Your task to perform on an android device: Add "macbook pro 13 inch" to the cart on newegg.com, then select checkout. Image 0: 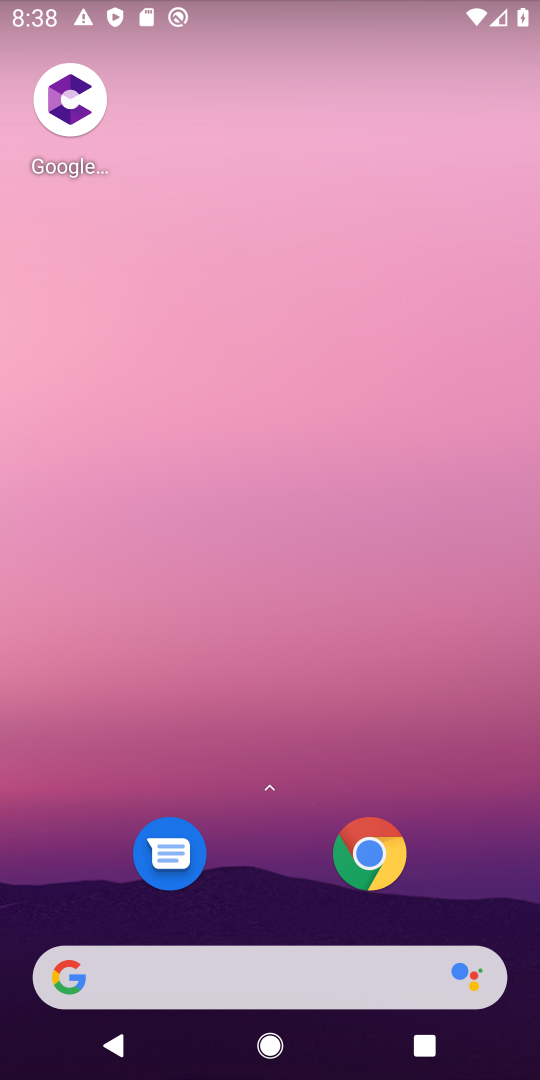
Step 0: click (216, 1001)
Your task to perform on an android device: Add "macbook pro 13 inch" to the cart on newegg.com, then select checkout. Image 1: 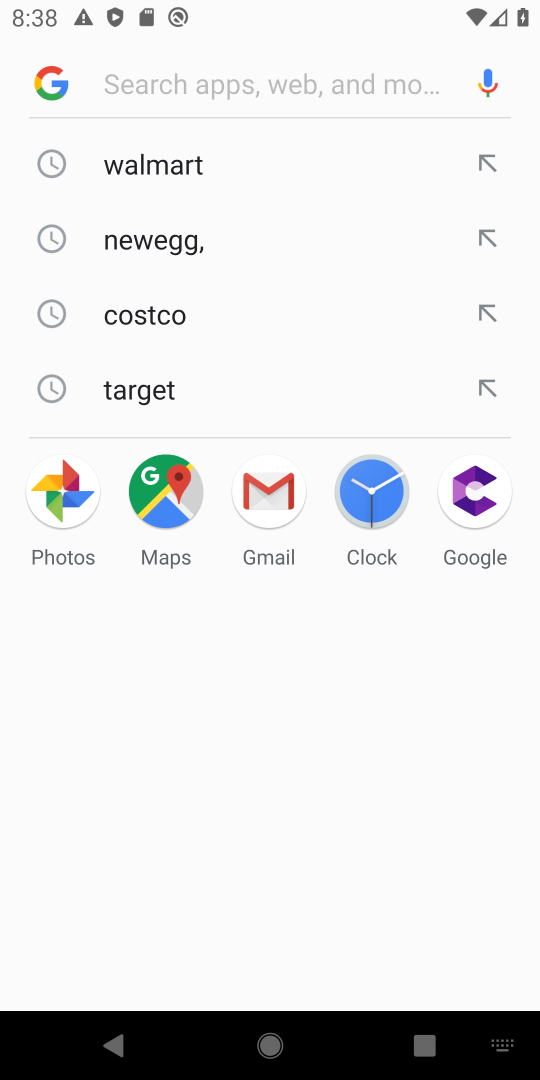
Step 1: type "macbook"
Your task to perform on an android device: Add "macbook pro 13 inch" to the cart on newegg.com, then select checkout. Image 2: 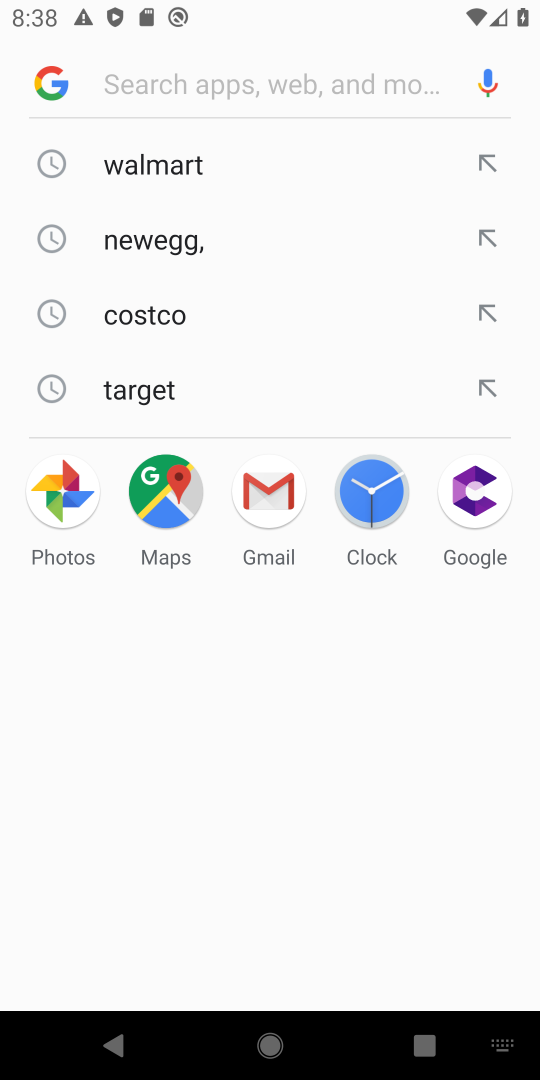
Step 2: click (234, 258)
Your task to perform on an android device: Add "macbook pro 13 inch" to the cart on newegg.com, then select checkout. Image 3: 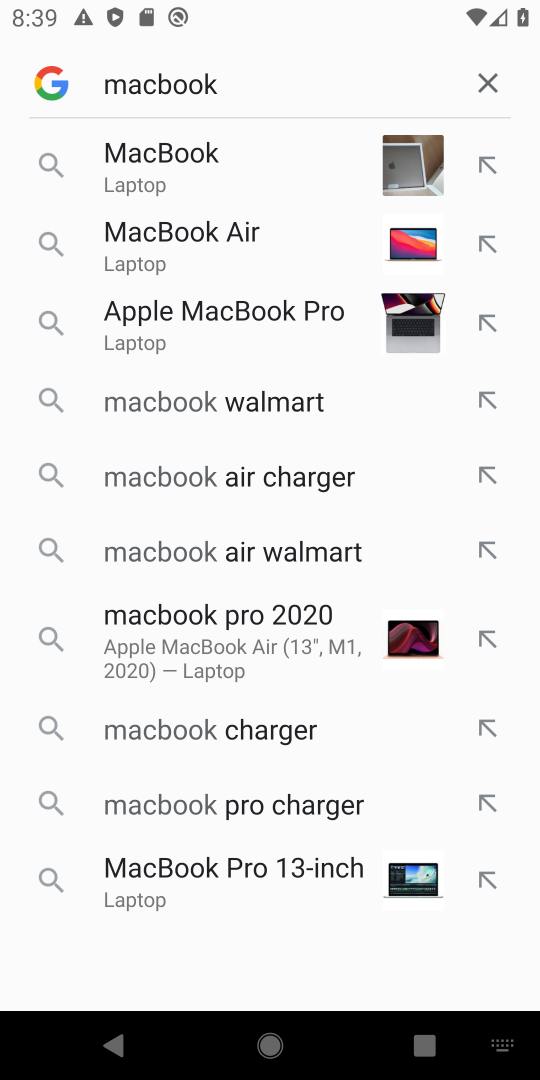
Step 3: click (197, 195)
Your task to perform on an android device: Add "macbook pro 13 inch" to the cart on newegg.com, then select checkout. Image 4: 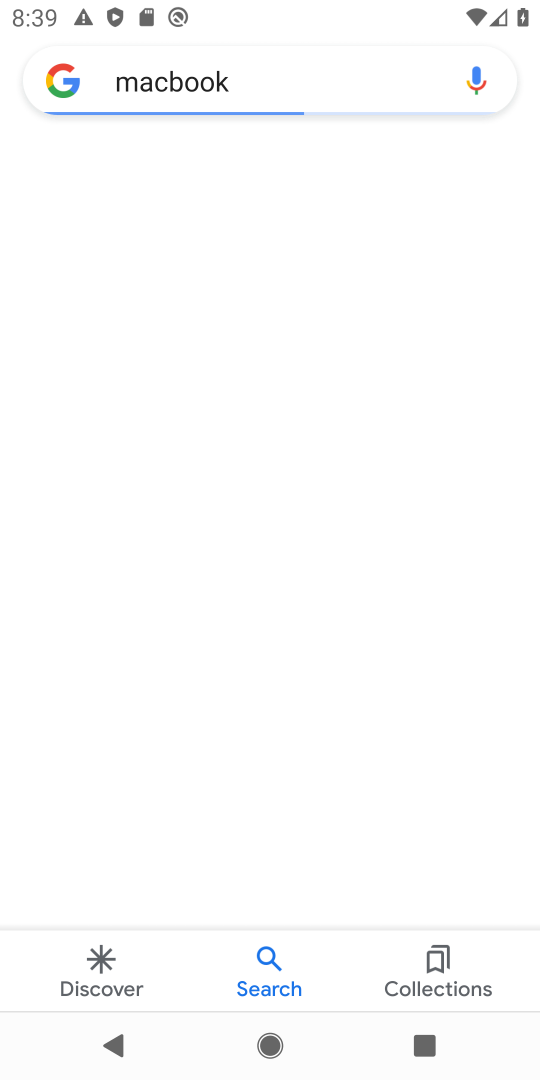
Step 4: task complete